Your task to perform on an android device: open sync settings in chrome Image 0: 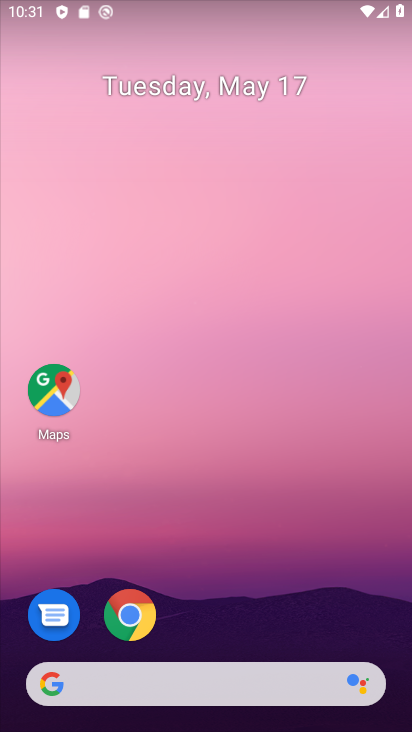
Step 0: click (130, 609)
Your task to perform on an android device: open sync settings in chrome Image 1: 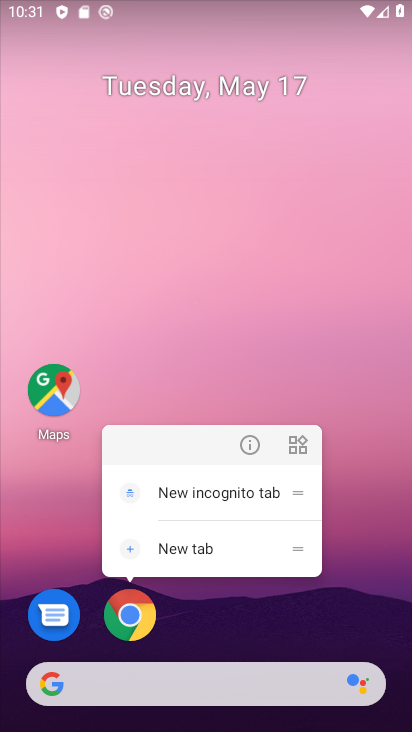
Step 1: click (244, 447)
Your task to perform on an android device: open sync settings in chrome Image 2: 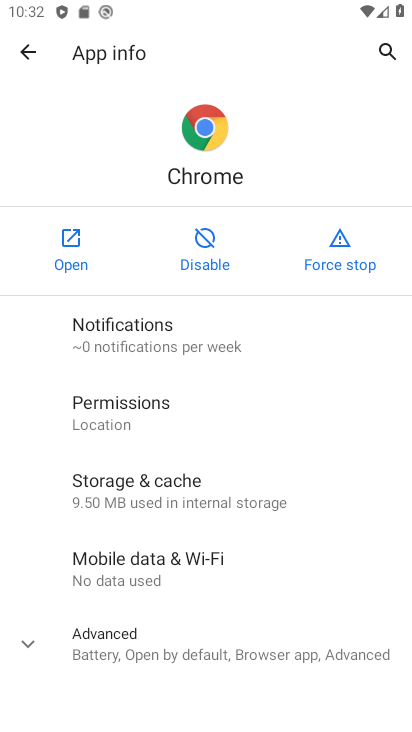
Step 2: click (68, 248)
Your task to perform on an android device: open sync settings in chrome Image 3: 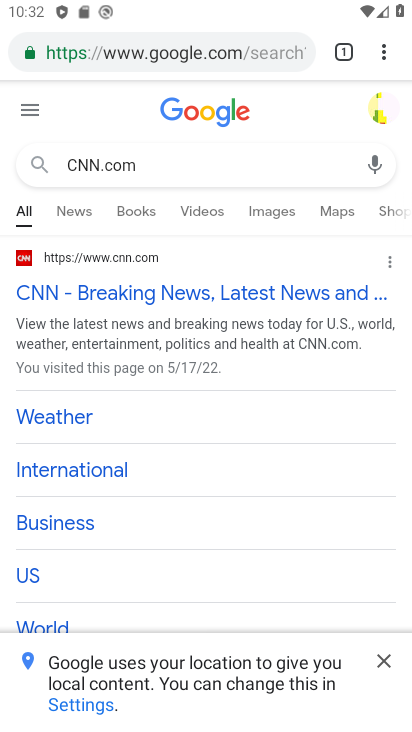
Step 3: click (386, 48)
Your task to perform on an android device: open sync settings in chrome Image 4: 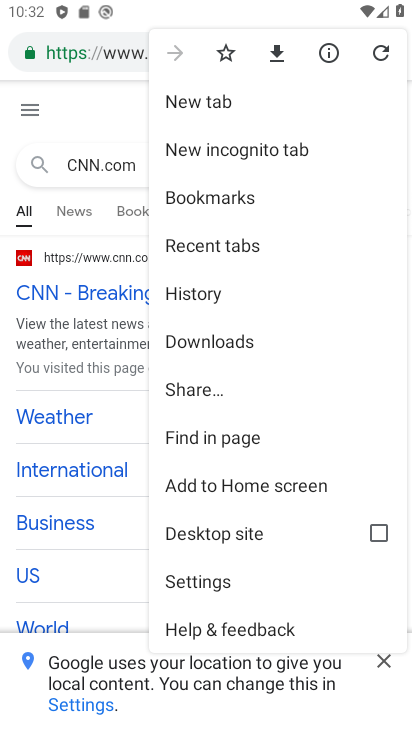
Step 4: click (215, 571)
Your task to perform on an android device: open sync settings in chrome Image 5: 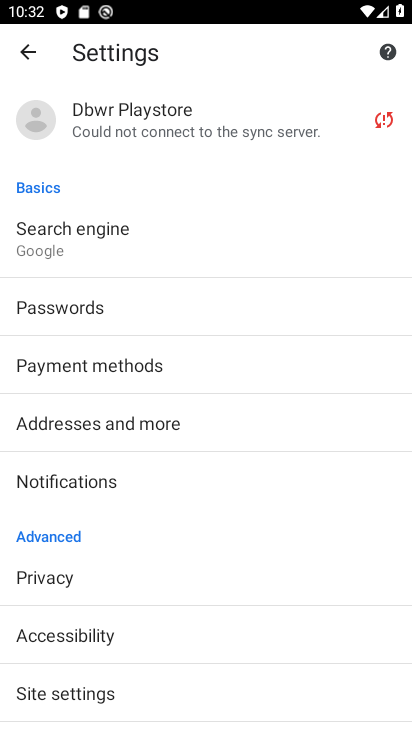
Step 5: task complete